Your task to perform on an android device: turn on bluetooth scan Image 0: 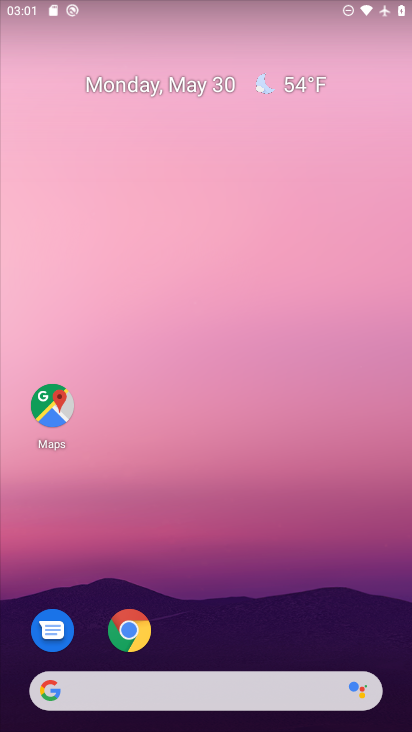
Step 0: press home button
Your task to perform on an android device: turn on bluetooth scan Image 1: 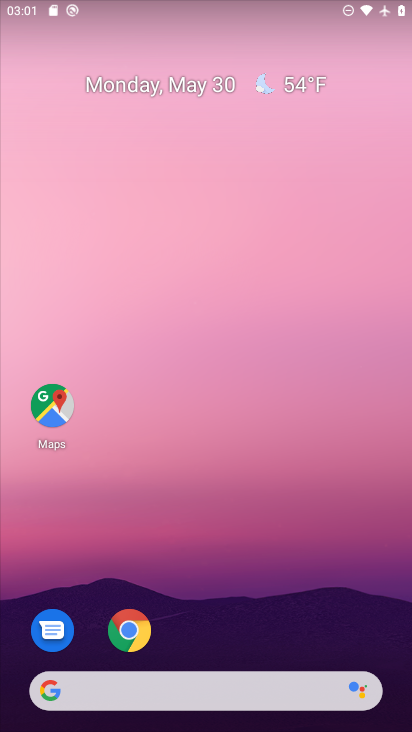
Step 1: drag from (221, 684) to (368, 115)
Your task to perform on an android device: turn on bluetooth scan Image 2: 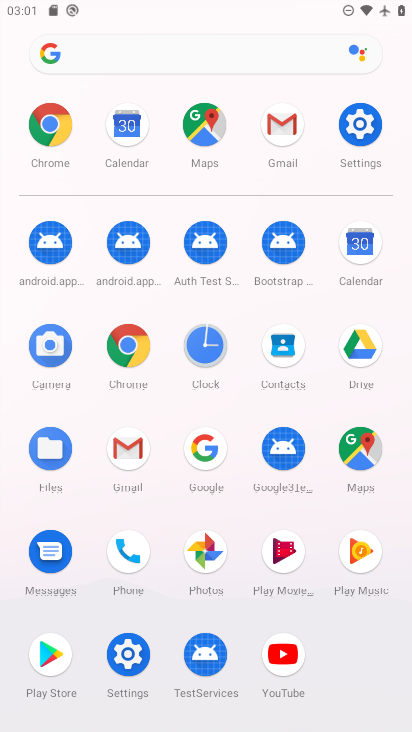
Step 2: click (367, 128)
Your task to perform on an android device: turn on bluetooth scan Image 3: 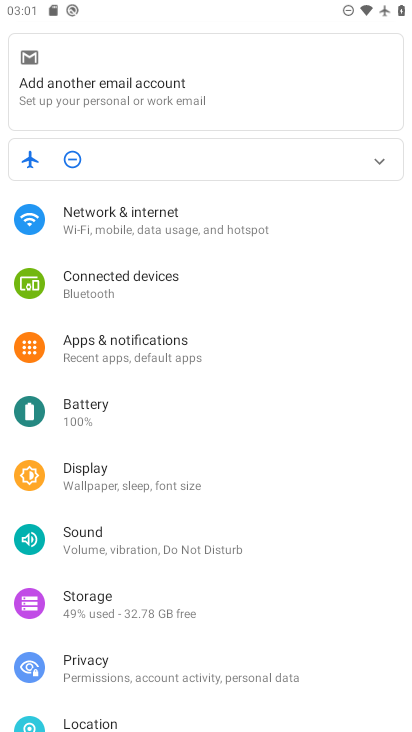
Step 3: drag from (157, 623) to (254, 356)
Your task to perform on an android device: turn on bluetooth scan Image 4: 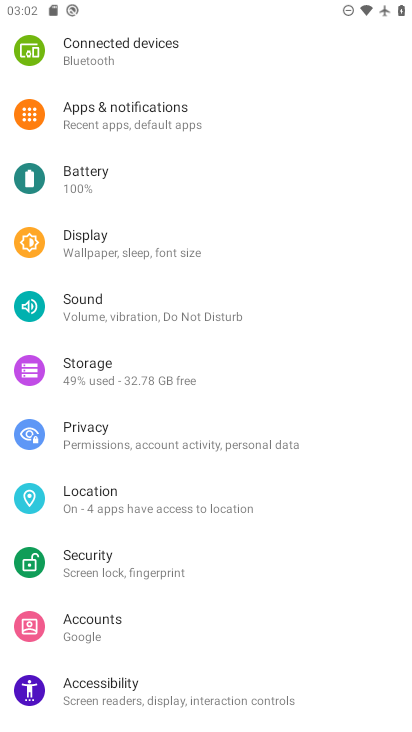
Step 4: click (124, 505)
Your task to perform on an android device: turn on bluetooth scan Image 5: 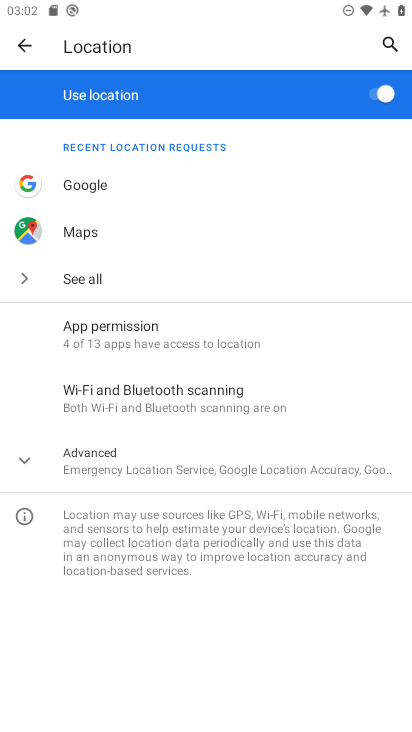
Step 5: click (155, 398)
Your task to perform on an android device: turn on bluetooth scan Image 6: 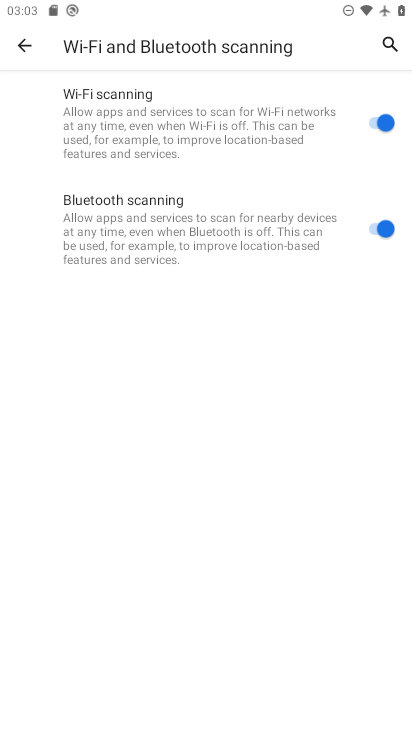
Step 6: task complete